Your task to perform on an android device: set default search engine in the chrome app Image 0: 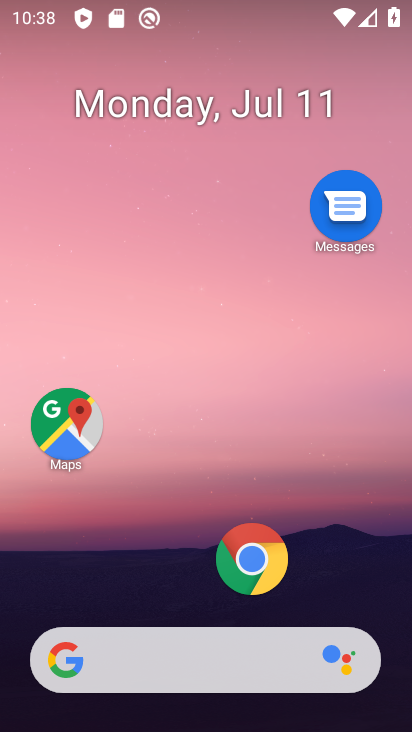
Step 0: drag from (357, 577) to (375, 293)
Your task to perform on an android device: set default search engine in the chrome app Image 1: 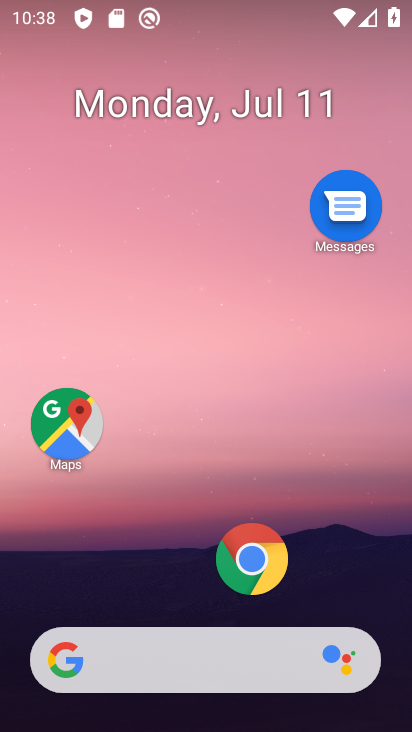
Step 1: drag from (366, 575) to (391, 131)
Your task to perform on an android device: set default search engine in the chrome app Image 2: 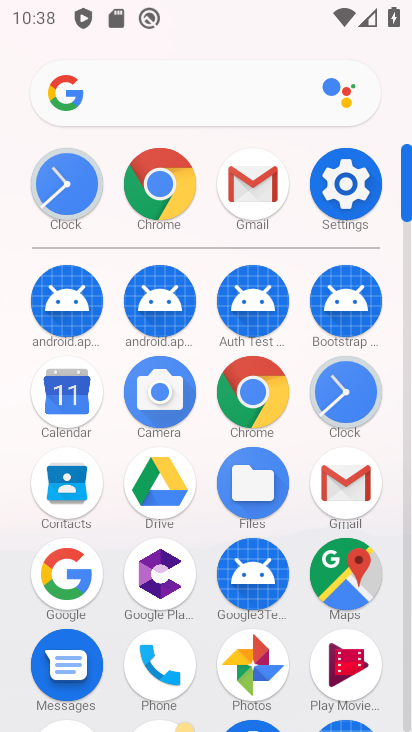
Step 2: click (265, 388)
Your task to perform on an android device: set default search engine in the chrome app Image 3: 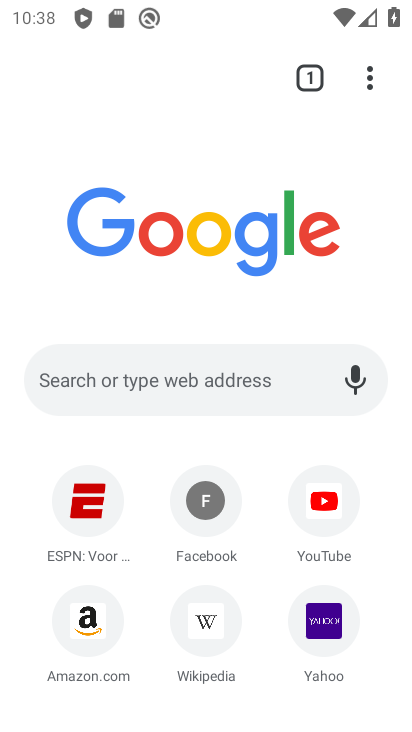
Step 3: click (366, 82)
Your task to perform on an android device: set default search engine in the chrome app Image 4: 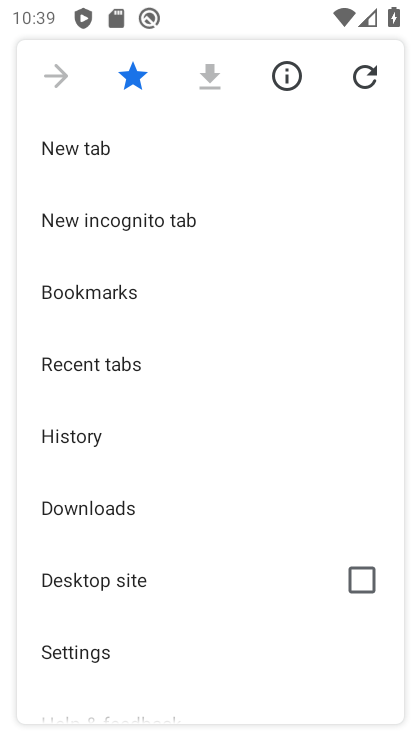
Step 4: click (98, 653)
Your task to perform on an android device: set default search engine in the chrome app Image 5: 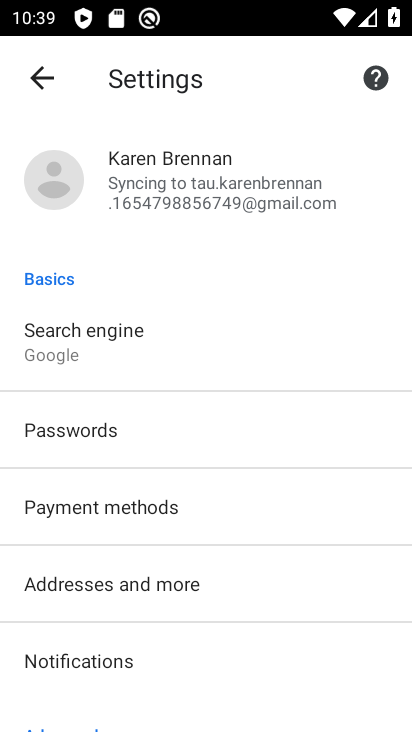
Step 5: click (180, 372)
Your task to perform on an android device: set default search engine in the chrome app Image 6: 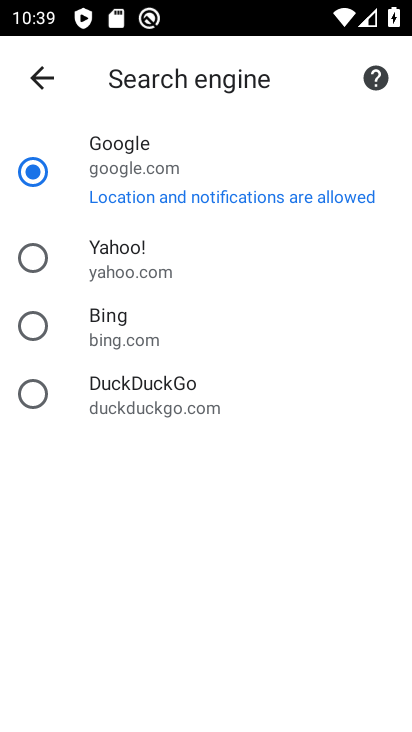
Step 6: click (113, 328)
Your task to perform on an android device: set default search engine in the chrome app Image 7: 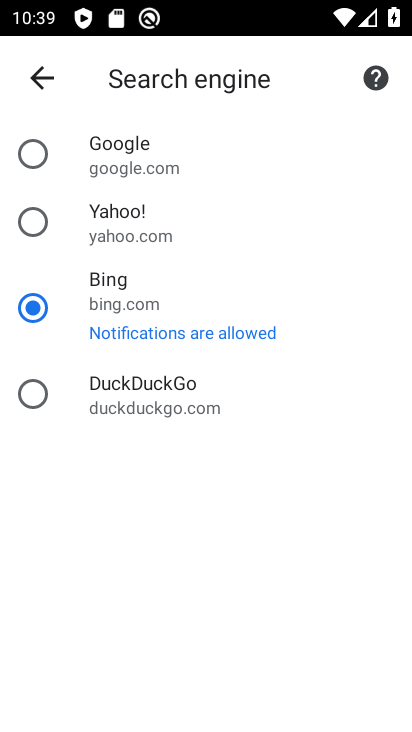
Step 7: task complete